Your task to perform on an android device: Check the news Image 0: 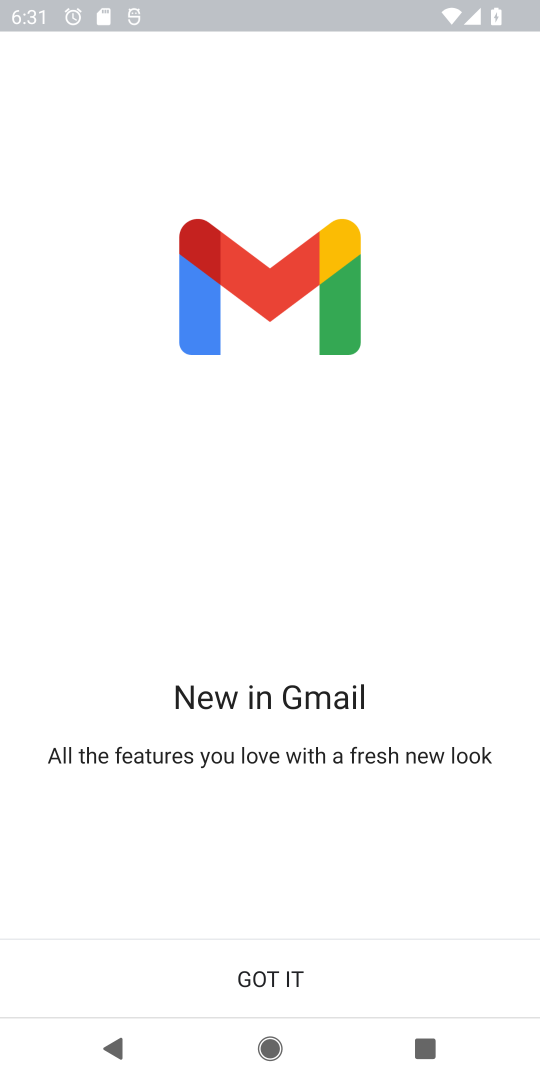
Step 0: press home button
Your task to perform on an android device: Check the news Image 1: 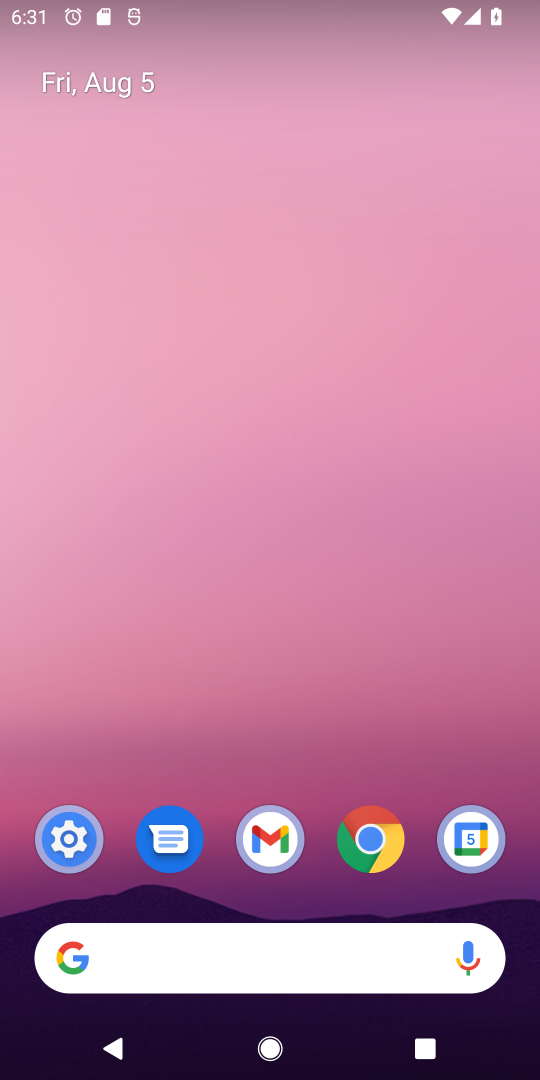
Step 1: drag from (318, 544) to (295, 204)
Your task to perform on an android device: Check the news Image 2: 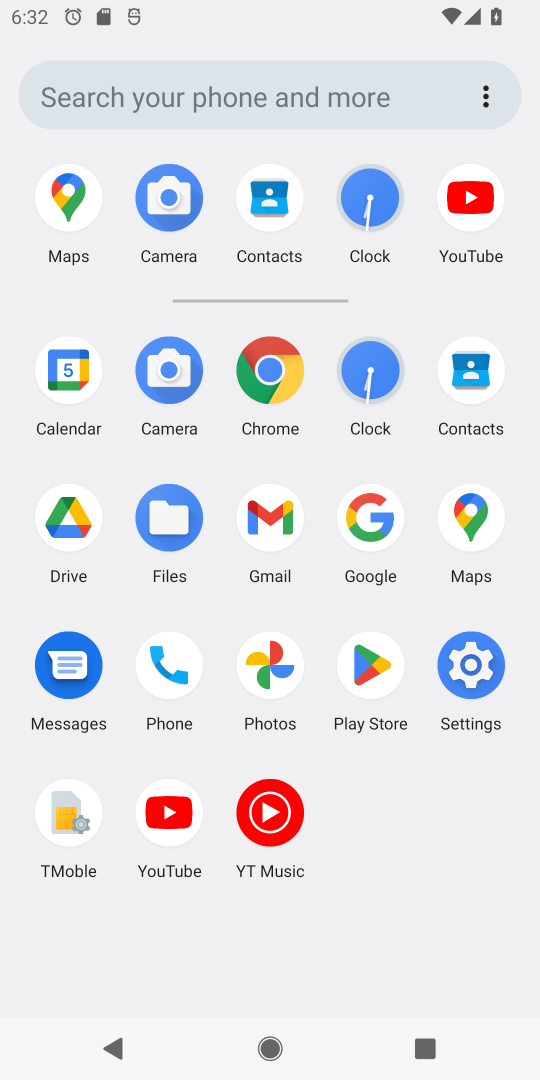
Step 2: click (349, 543)
Your task to perform on an android device: Check the news Image 3: 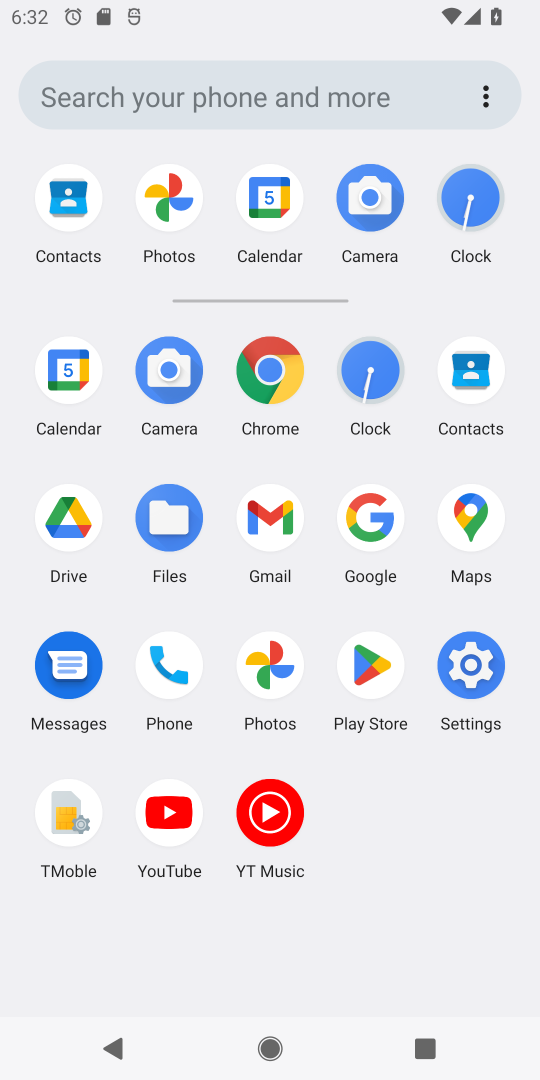
Step 3: click (379, 531)
Your task to perform on an android device: Check the news Image 4: 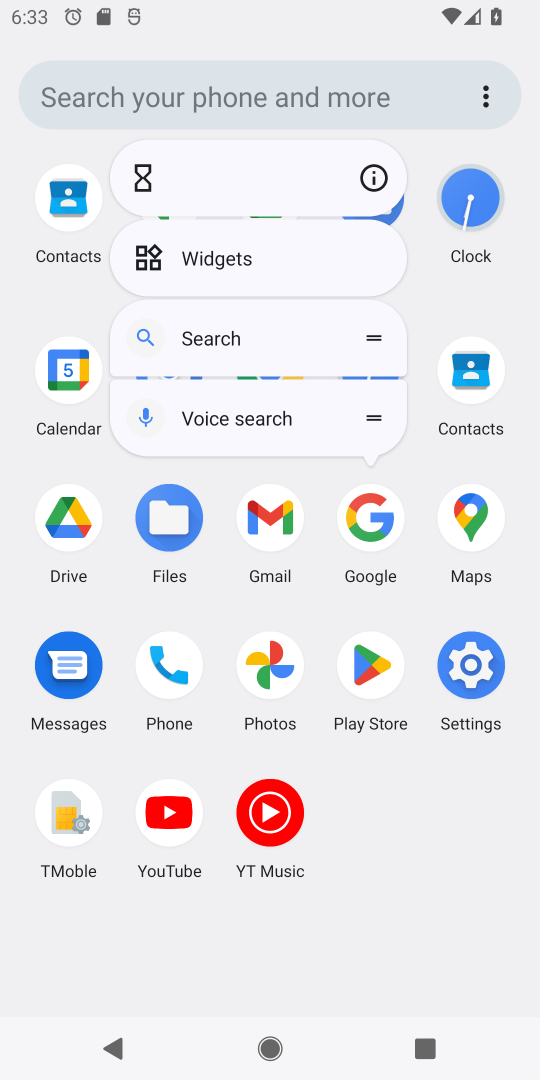
Step 4: click (330, 549)
Your task to perform on an android device: Check the news Image 5: 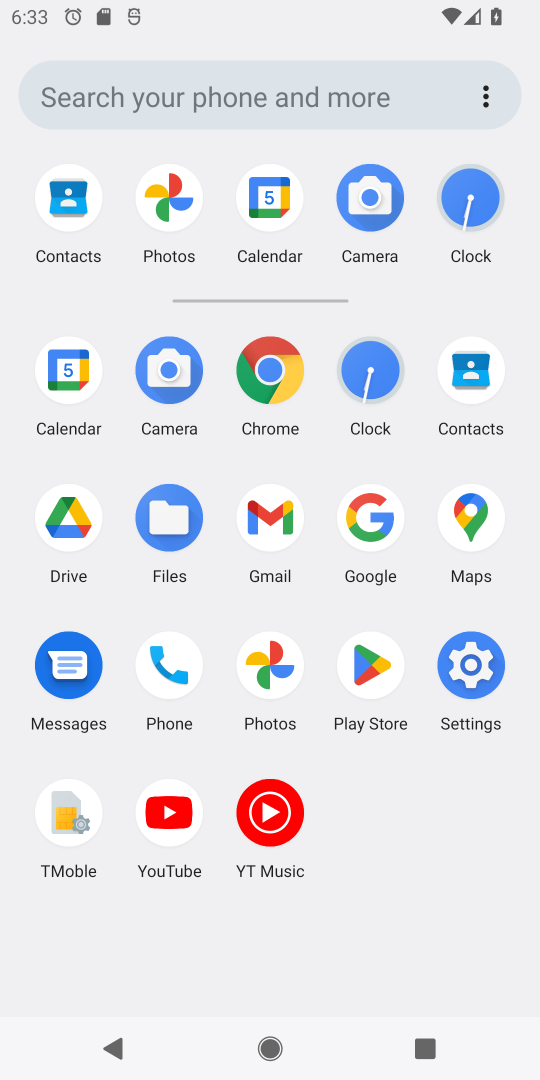
Step 5: click (366, 544)
Your task to perform on an android device: Check the news Image 6: 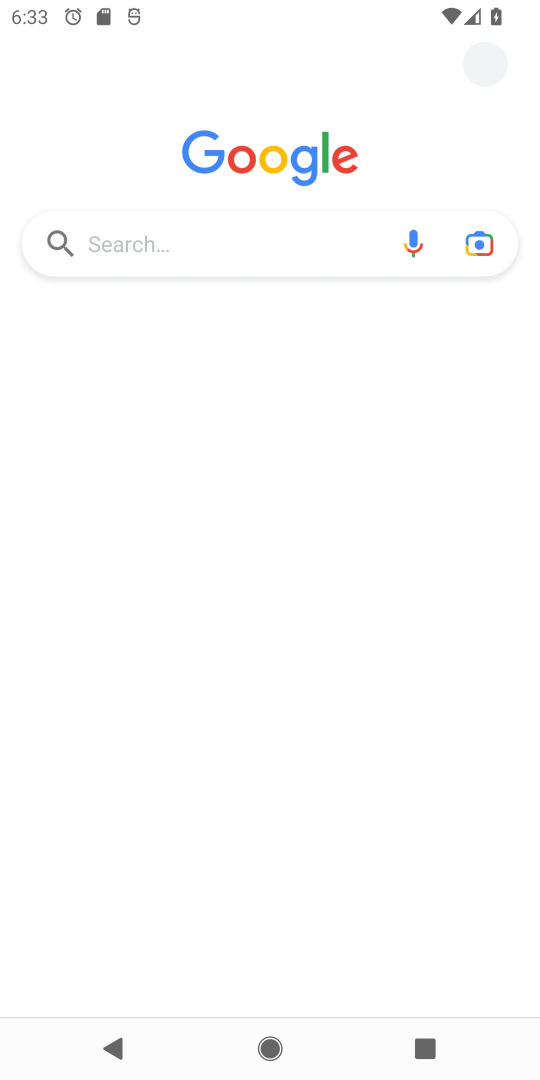
Step 6: click (243, 232)
Your task to perform on an android device: Check the news Image 7: 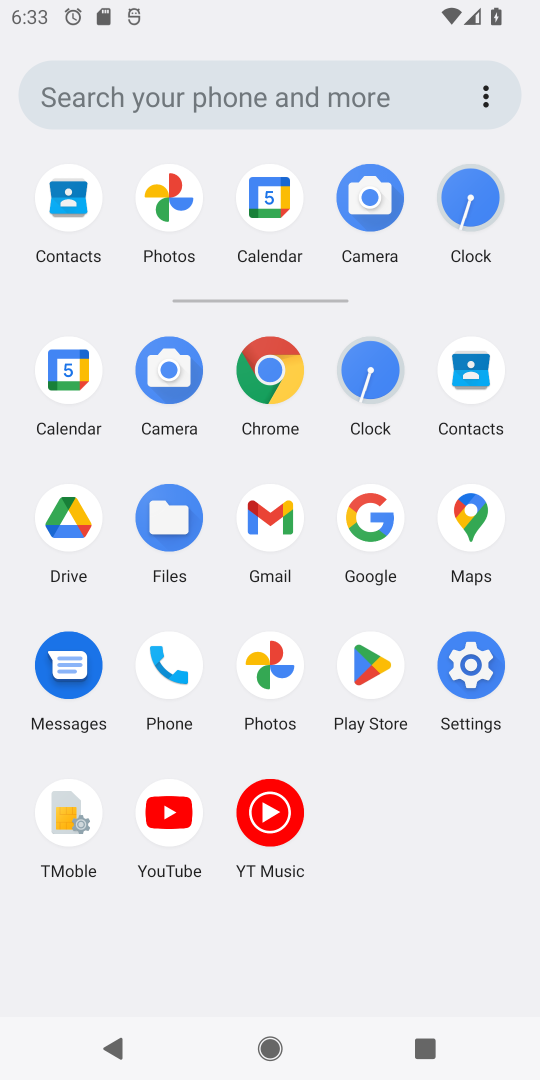
Step 7: click (383, 526)
Your task to perform on an android device: Check the news Image 8: 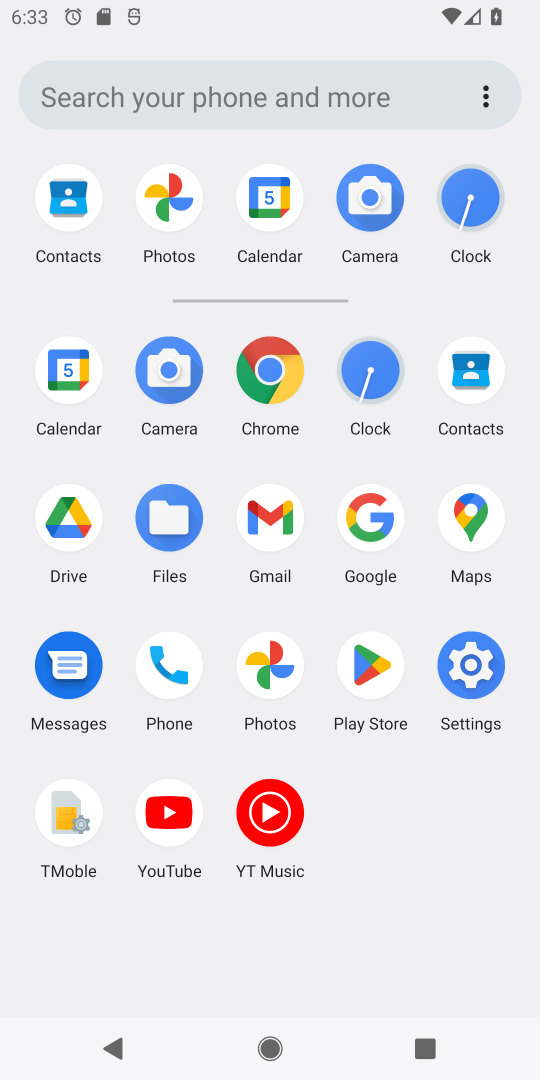
Step 8: click (368, 526)
Your task to perform on an android device: Check the news Image 9: 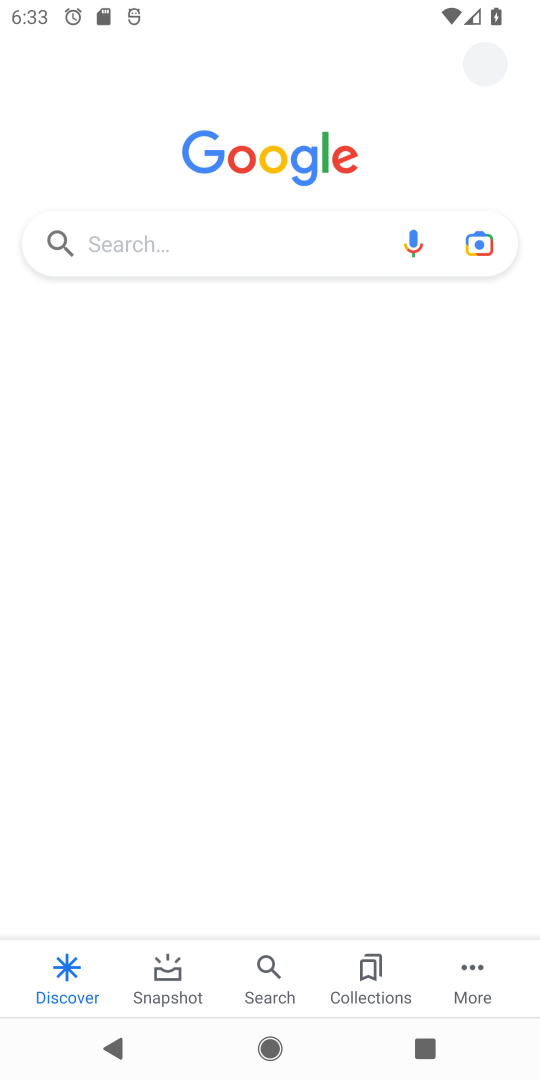
Step 9: click (193, 249)
Your task to perform on an android device: Check the news Image 10: 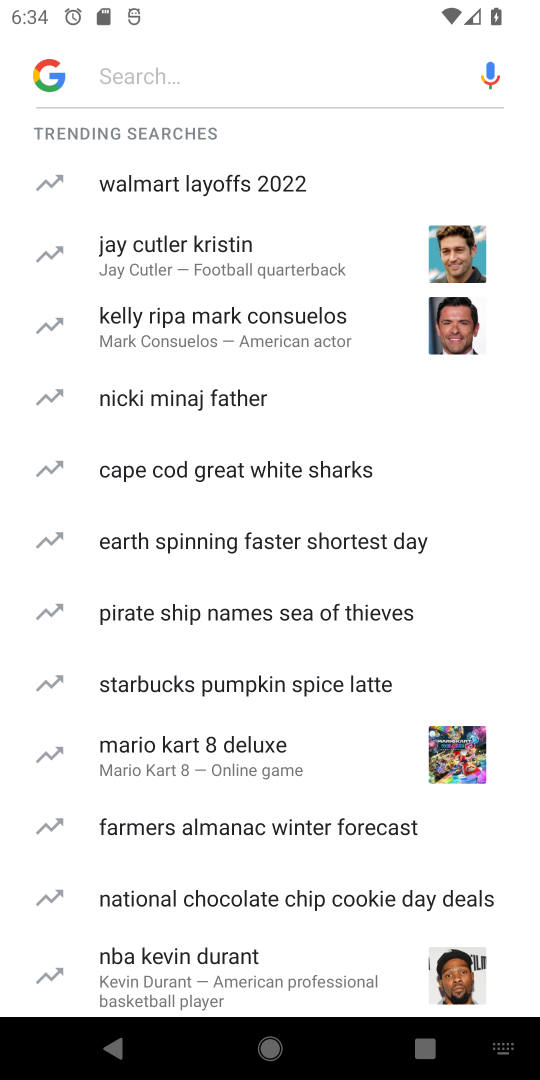
Step 10: type "news"
Your task to perform on an android device: Check the news Image 11: 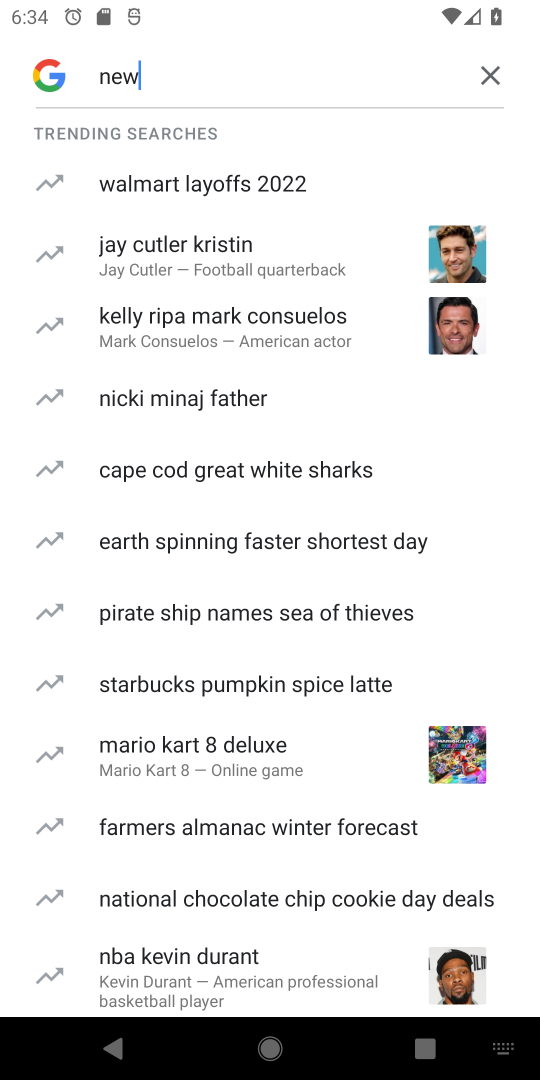
Step 11: type ""
Your task to perform on an android device: Check the news Image 12: 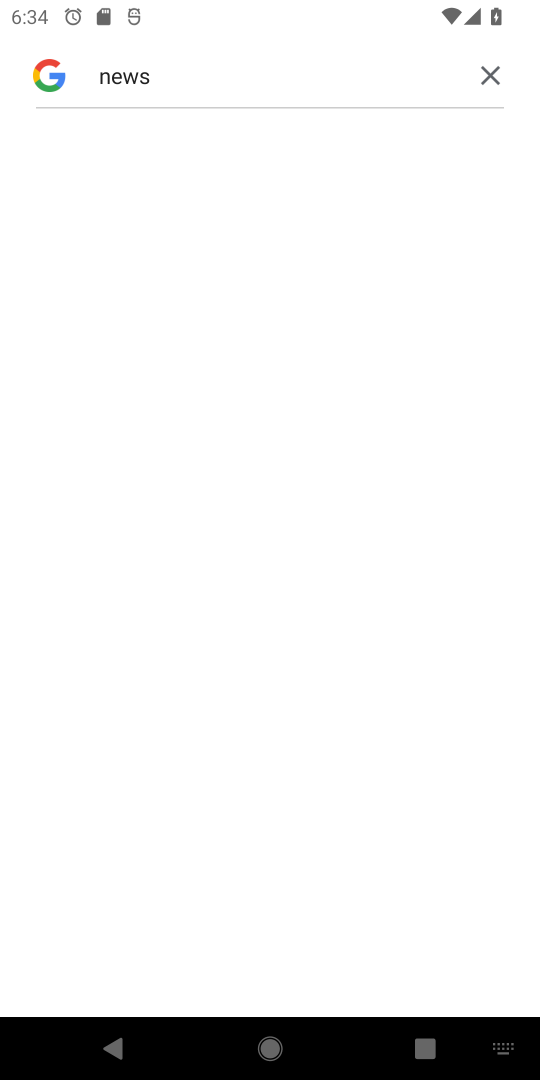
Step 12: task complete